Your task to perform on an android device: turn off javascript in the chrome app Image 0: 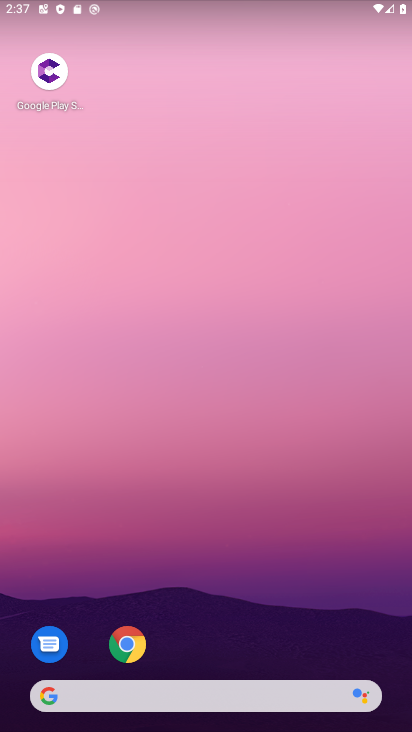
Step 0: click (123, 634)
Your task to perform on an android device: turn off javascript in the chrome app Image 1: 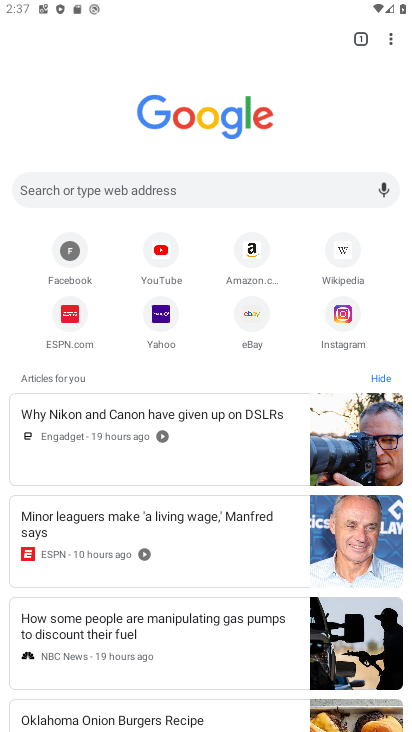
Step 1: click (394, 37)
Your task to perform on an android device: turn off javascript in the chrome app Image 2: 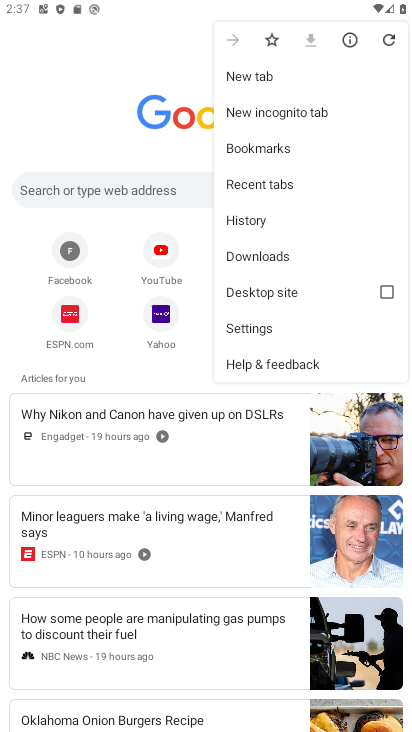
Step 2: click (267, 327)
Your task to perform on an android device: turn off javascript in the chrome app Image 3: 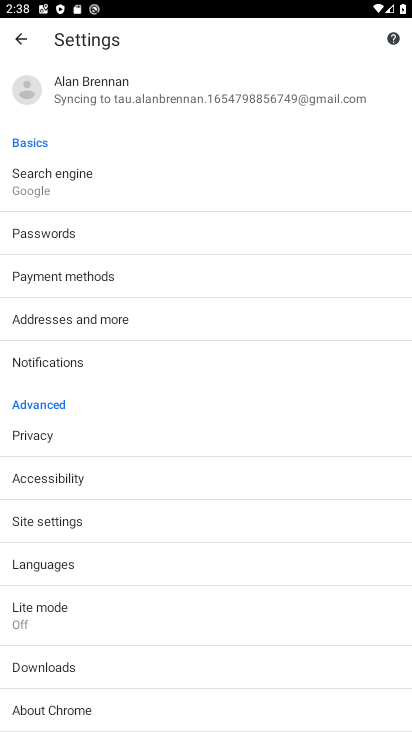
Step 3: click (158, 533)
Your task to perform on an android device: turn off javascript in the chrome app Image 4: 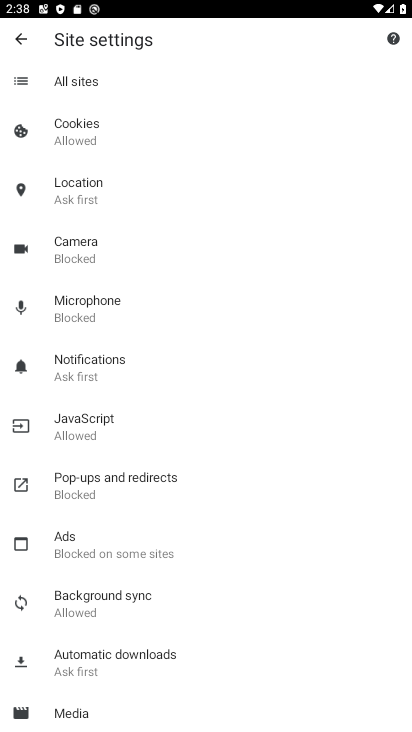
Step 4: click (109, 441)
Your task to perform on an android device: turn off javascript in the chrome app Image 5: 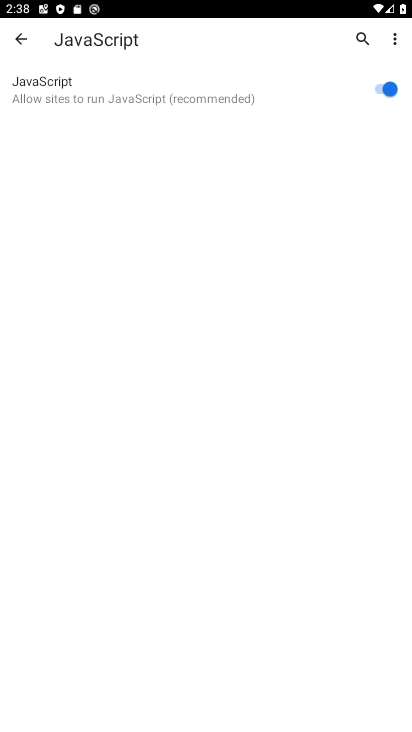
Step 5: click (380, 87)
Your task to perform on an android device: turn off javascript in the chrome app Image 6: 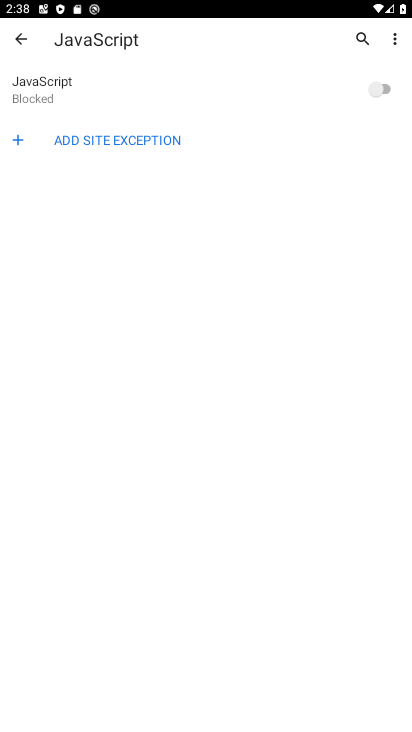
Step 6: task complete